Your task to perform on an android device: Go to privacy settings Image 0: 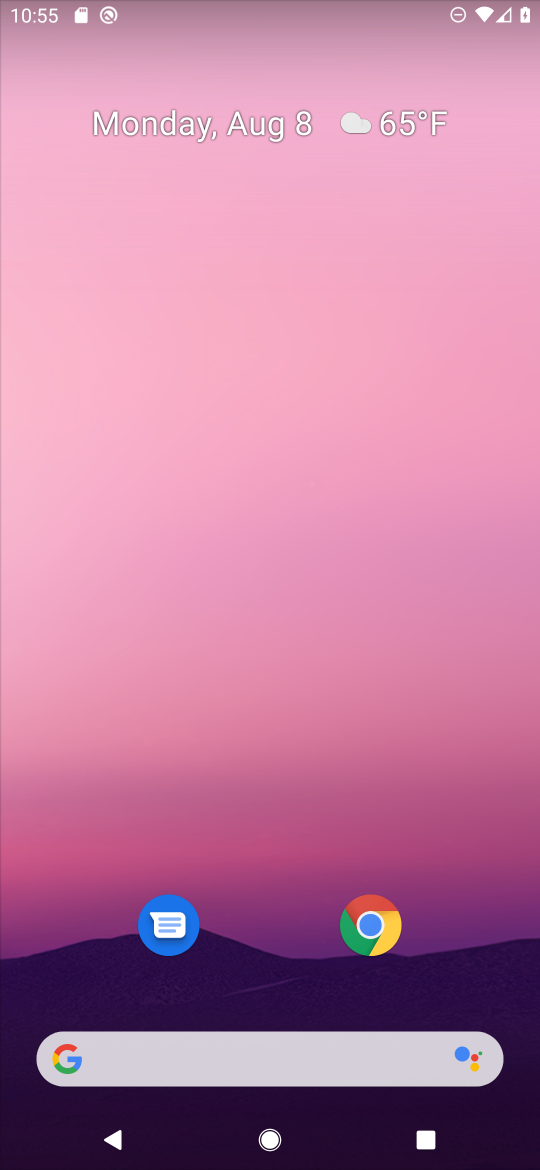
Step 0: drag from (258, 947) to (536, 181)
Your task to perform on an android device: Go to privacy settings Image 1: 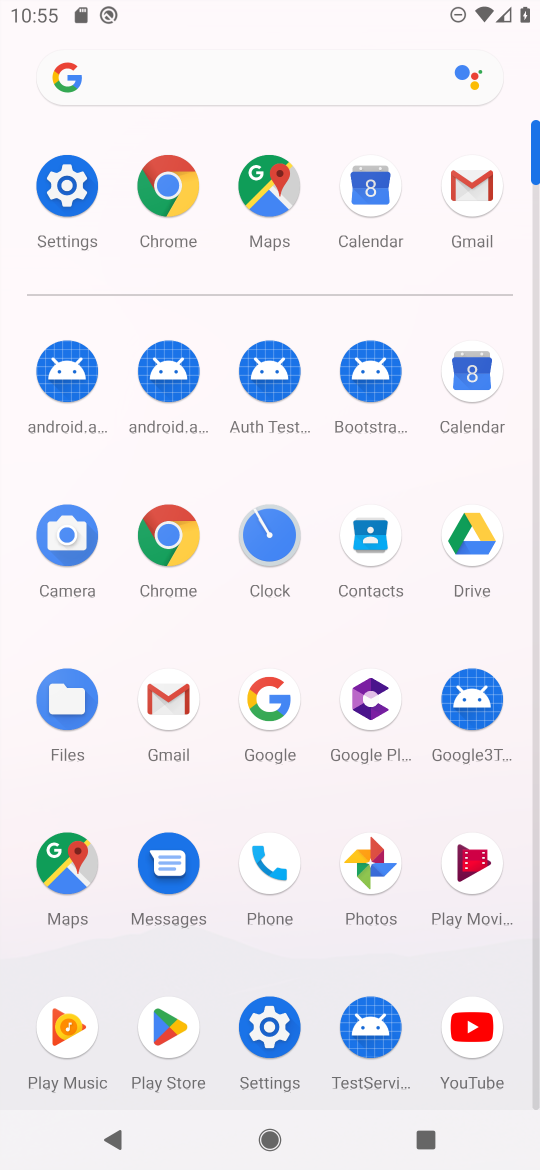
Step 1: click (65, 190)
Your task to perform on an android device: Go to privacy settings Image 2: 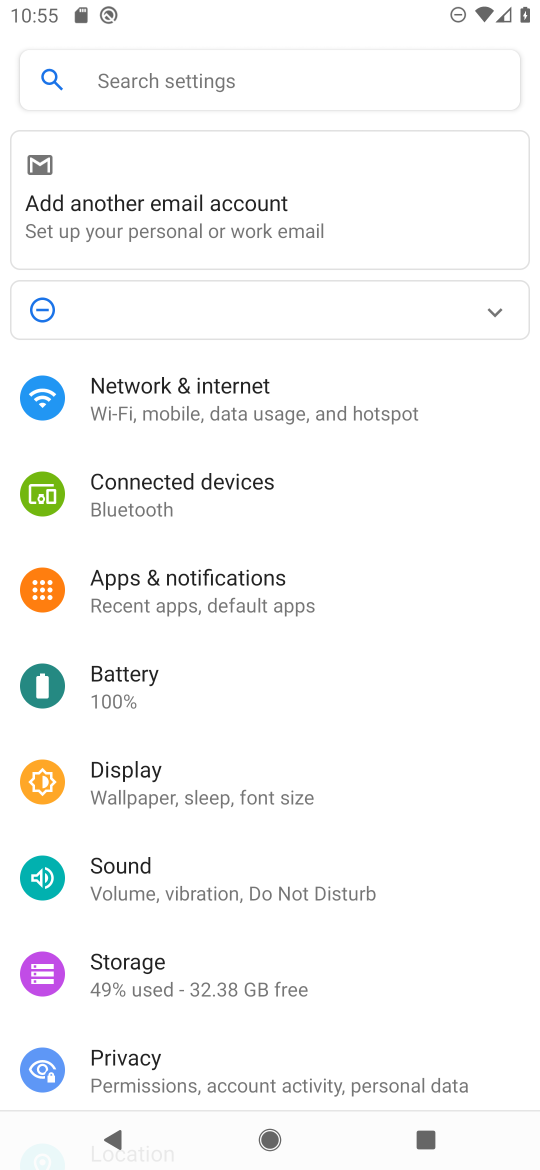
Step 2: drag from (346, 1023) to (372, 561)
Your task to perform on an android device: Go to privacy settings Image 3: 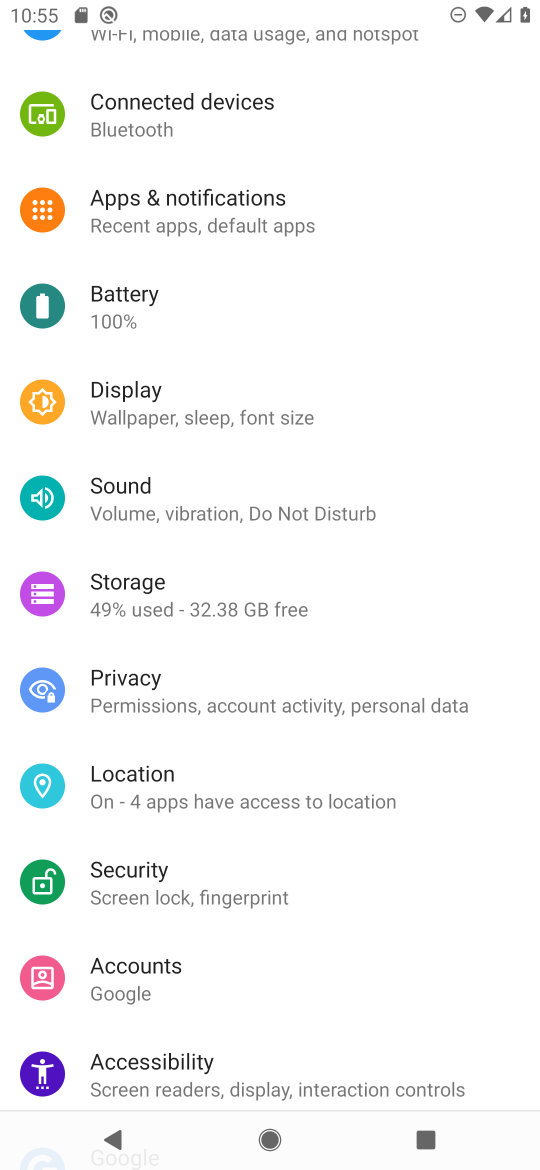
Step 3: click (174, 706)
Your task to perform on an android device: Go to privacy settings Image 4: 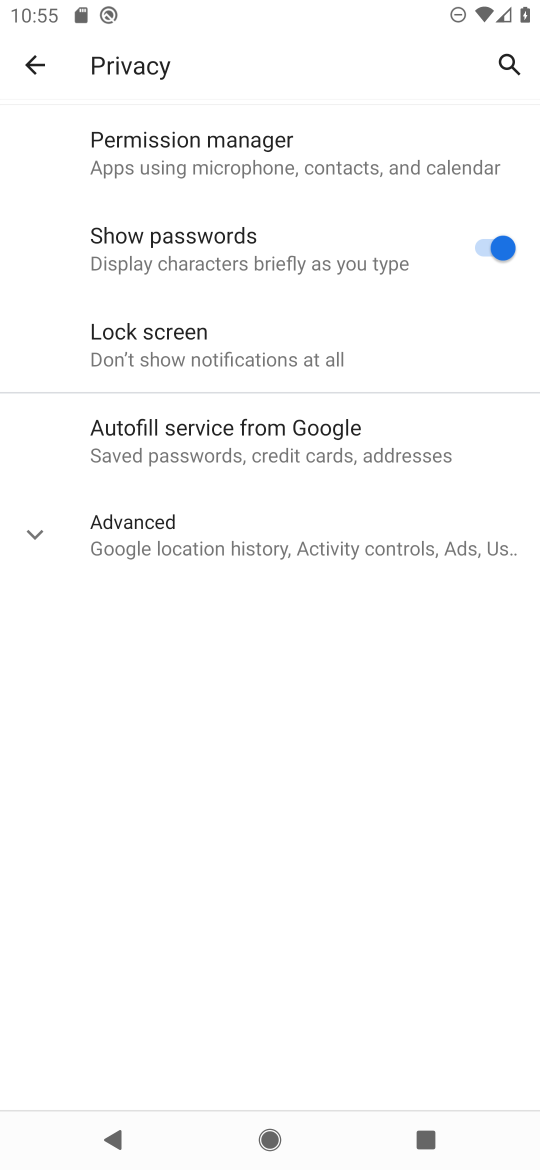
Step 4: task complete